Your task to perform on an android device: Add "alienware area 51" to the cart on ebay.com Image 0: 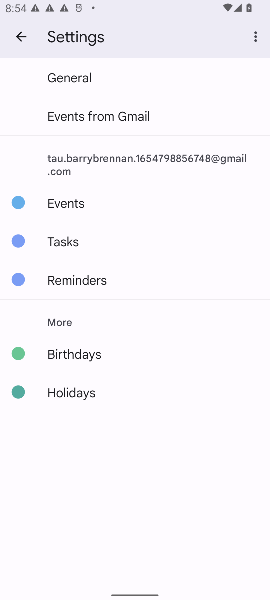
Step 0: task complete